Your task to perform on an android device: Do I have any events today? Image 0: 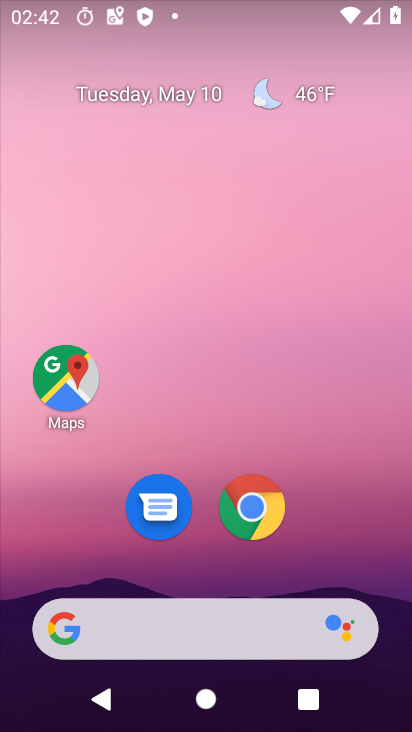
Step 0: drag from (270, 617) to (266, 86)
Your task to perform on an android device: Do I have any events today? Image 1: 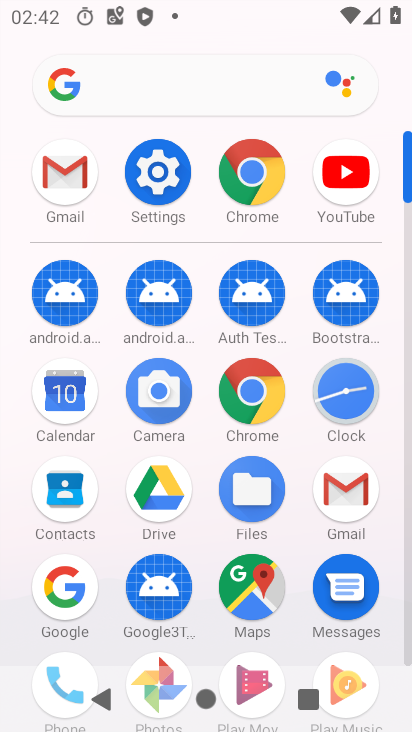
Step 1: click (73, 409)
Your task to perform on an android device: Do I have any events today? Image 2: 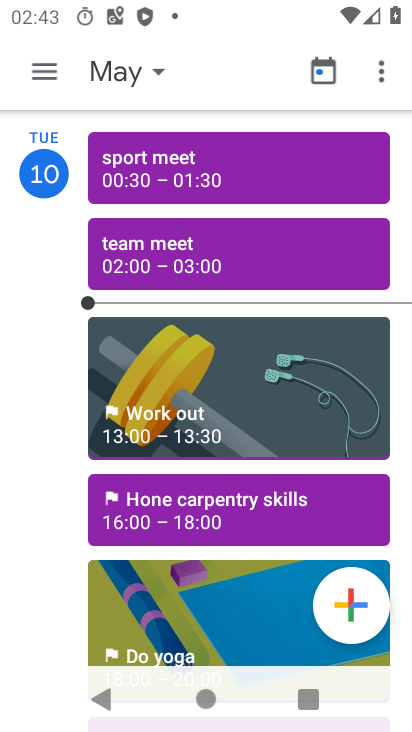
Step 2: click (54, 85)
Your task to perform on an android device: Do I have any events today? Image 3: 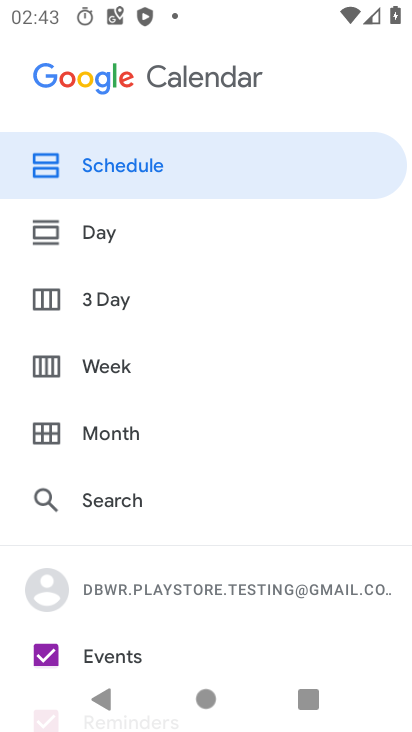
Step 3: click (109, 167)
Your task to perform on an android device: Do I have any events today? Image 4: 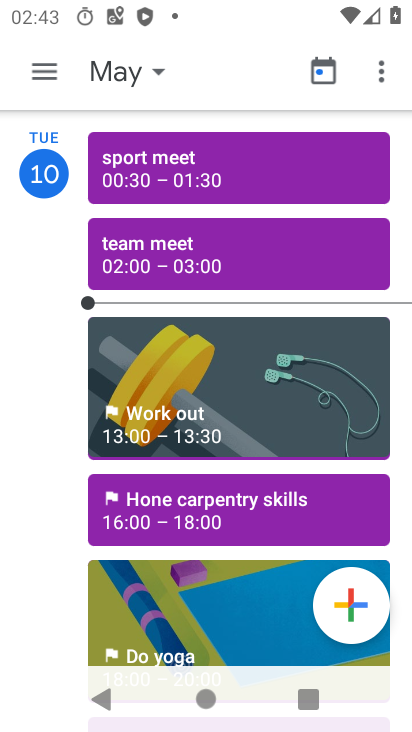
Step 4: task complete